Your task to perform on an android device: Open Google Chrome and click the shortcut for Amazon.com Image 0: 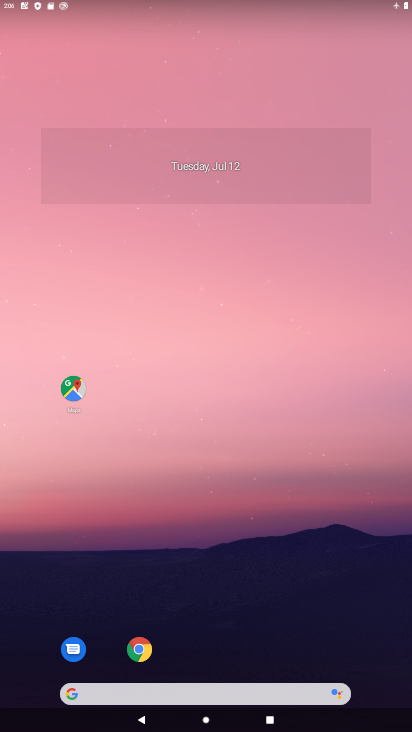
Step 0: click (146, 653)
Your task to perform on an android device: Open Google Chrome and click the shortcut for Amazon.com Image 1: 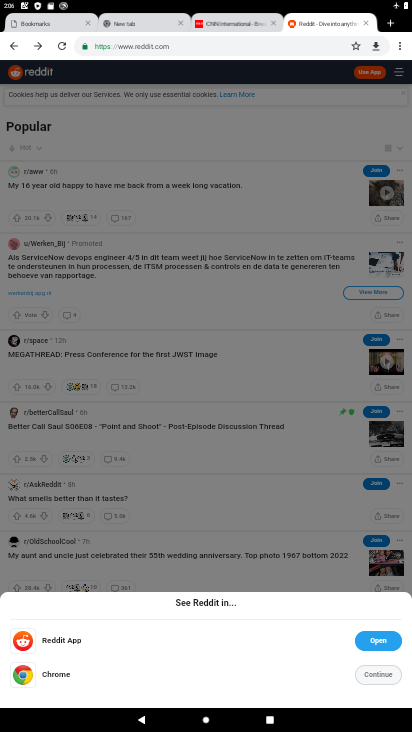
Step 1: click (384, 24)
Your task to perform on an android device: Open Google Chrome and click the shortcut for Amazon.com Image 2: 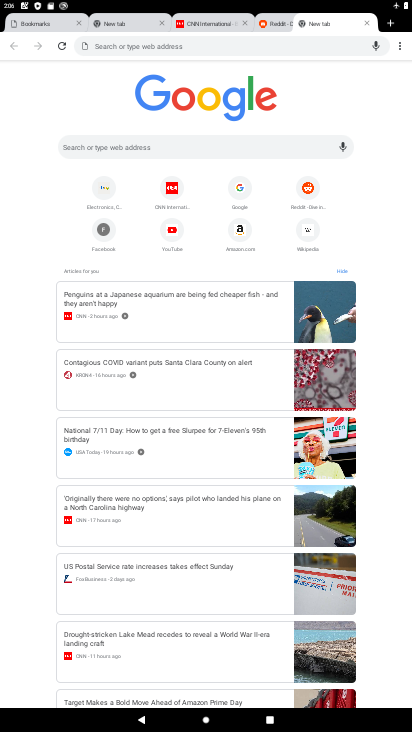
Step 2: click (231, 235)
Your task to perform on an android device: Open Google Chrome and click the shortcut for Amazon.com Image 3: 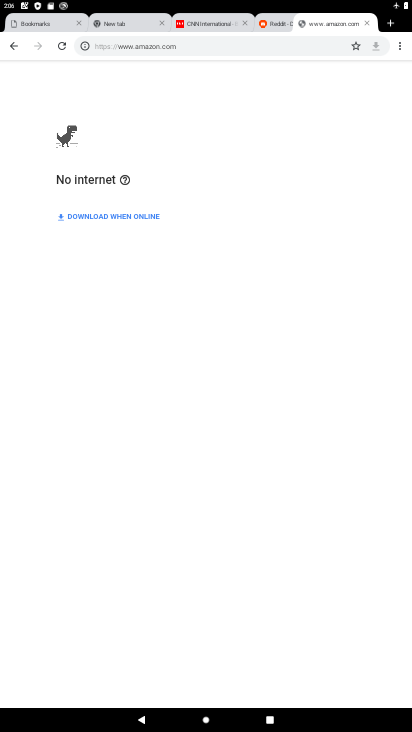
Step 3: task complete